Your task to perform on an android device: Open Reddit.com Image 0: 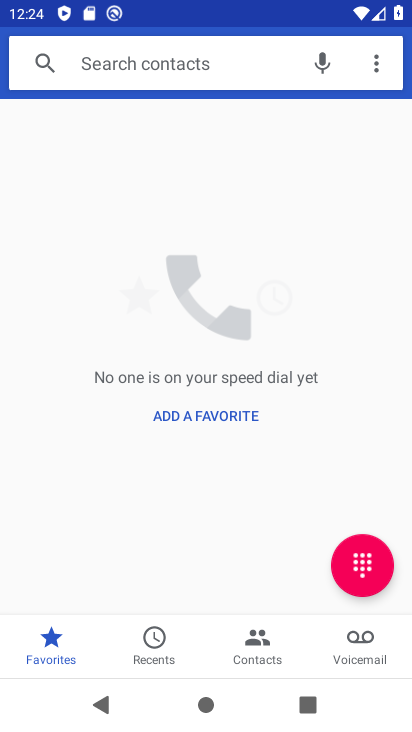
Step 0: click (134, 533)
Your task to perform on an android device: Open Reddit.com Image 1: 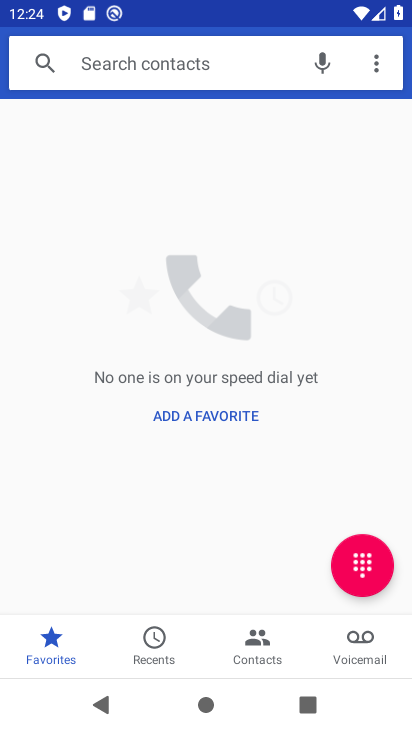
Step 1: press home button
Your task to perform on an android device: Open Reddit.com Image 2: 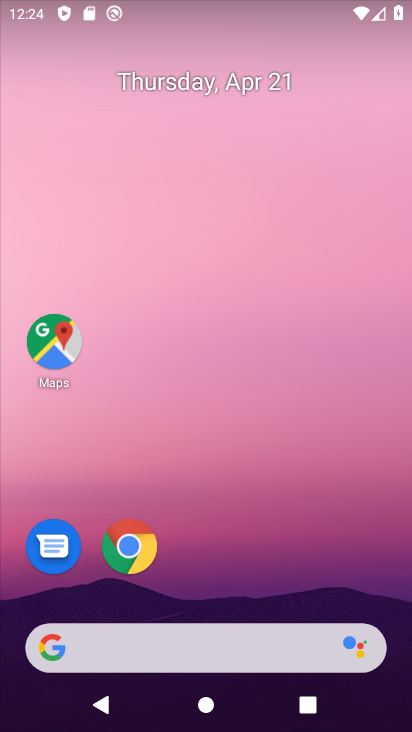
Step 2: drag from (269, 577) to (264, 223)
Your task to perform on an android device: Open Reddit.com Image 3: 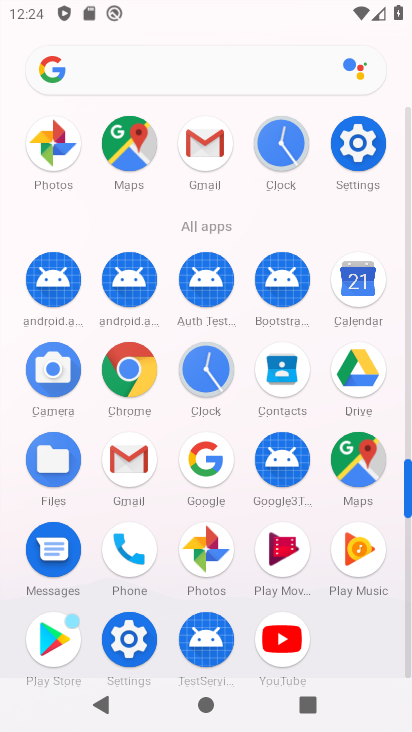
Step 3: click (129, 387)
Your task to perform on an android device: Open Reddit.com Image 4: 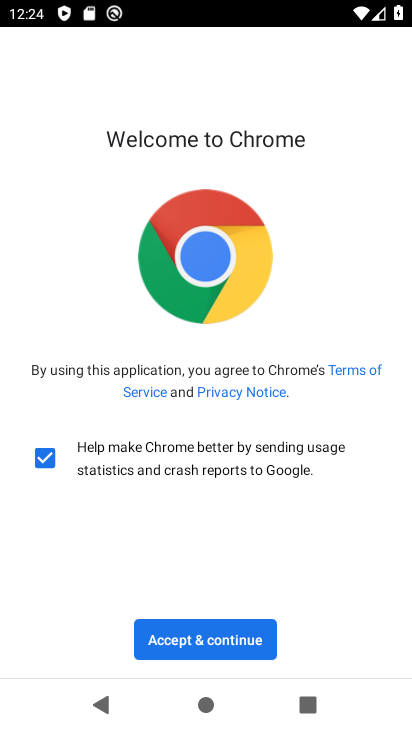
Step 4: click (209, 644)
Your task to perform on an android device: Open Reddit.com Image 5: 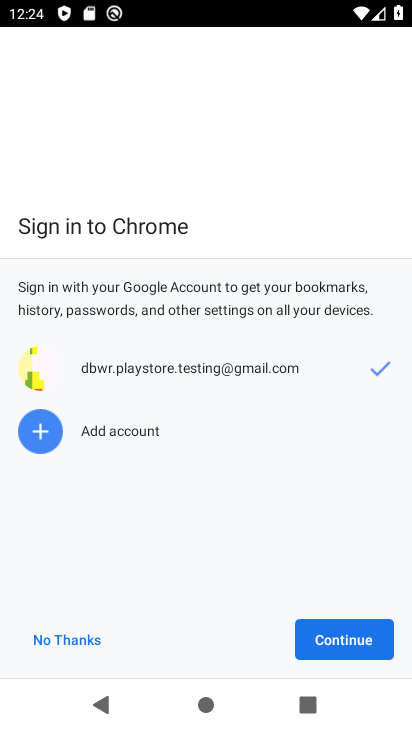
Step 5: click (374, 631)
Your task to perform on an android device: Open Reddit.com Image 6: 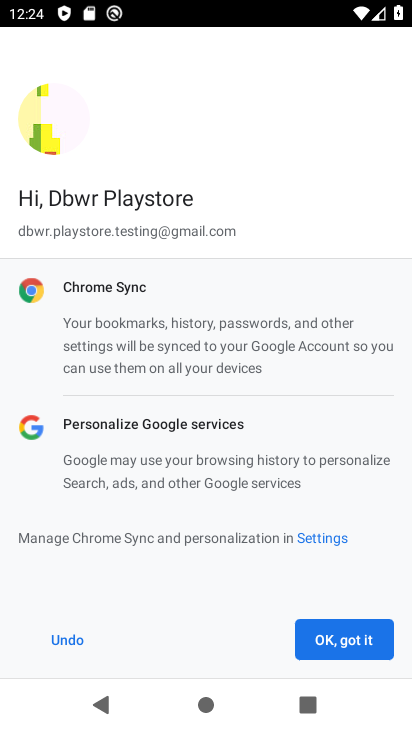
Step 6: click (374, 631)
Your task to perform on an android device: Open Reddit.com Image 7: 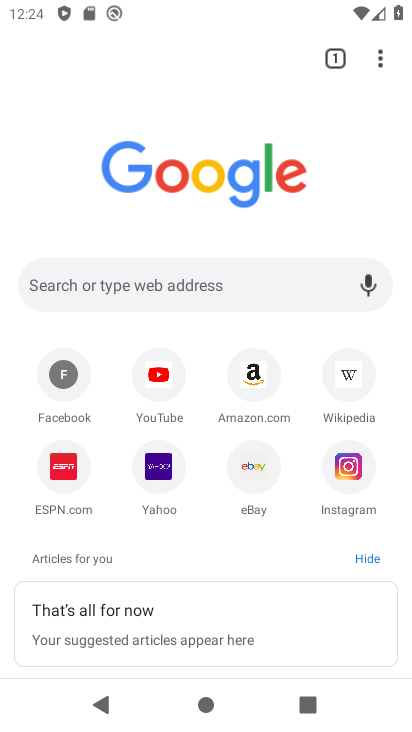
Step 7: click (212, 289)
Your task to perform on an android device: Open Reddit.com Image 8: 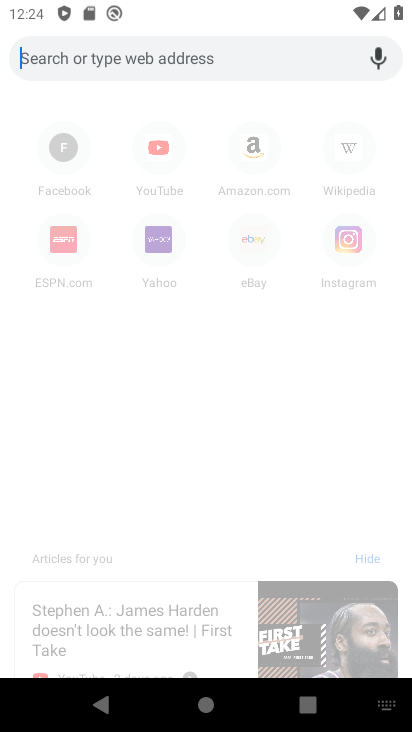
Step 8: type "Reddit.com"
Your task to perform on an android device: Open Reddit.com Image 9: 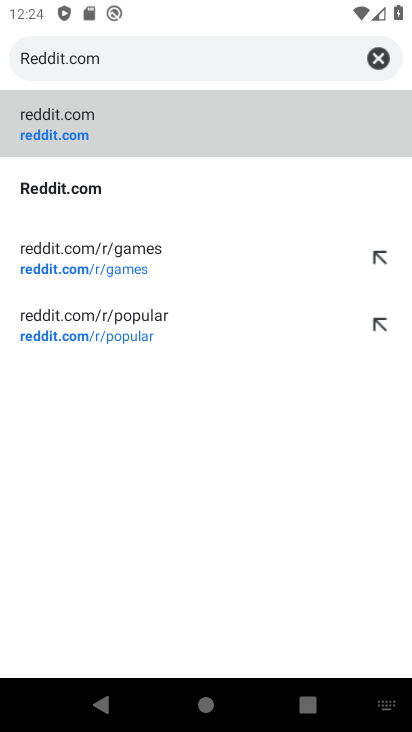
Step 9: click (50, 137)
Your task to perform on an android device: Open Reddit.com Image 10: 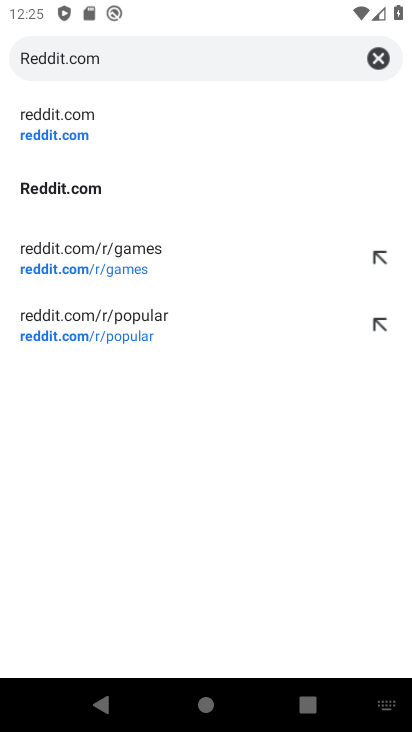
Step 10: click (51, 135)
Your task to perform on an android device: Open Reddit.com Image 11: 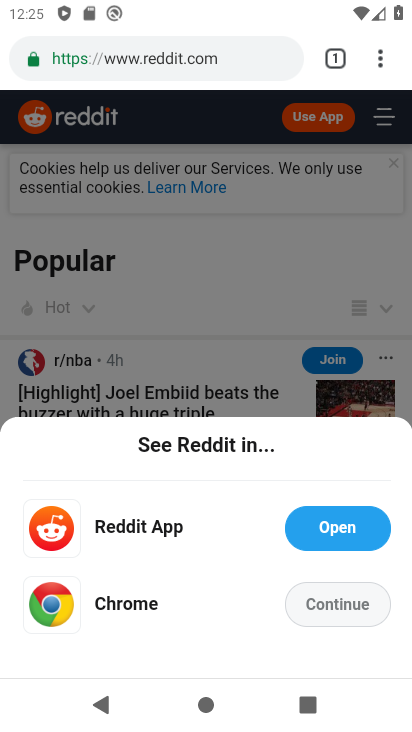
Step 11: task complete